Your task to perform on an android device: Go to notification settings Image 0: 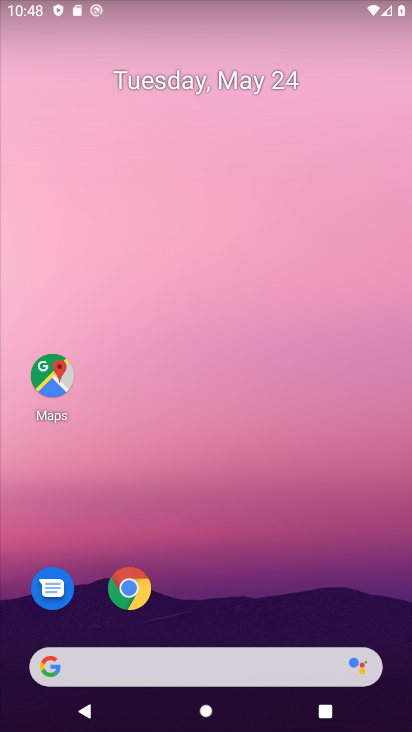
Step 0: drag from (205, 629) to (241, 206)
Your task to perform on an android device: Go to notification settings Image 1: 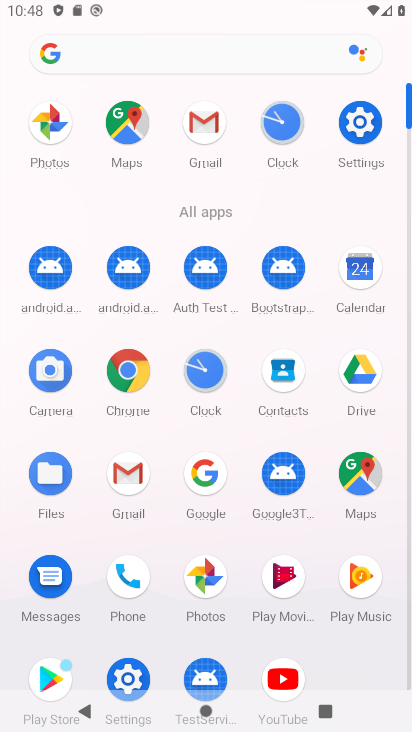
Step 1: click (365, 116)
Your task to perform on an android device: Go to notification settings Image 2: 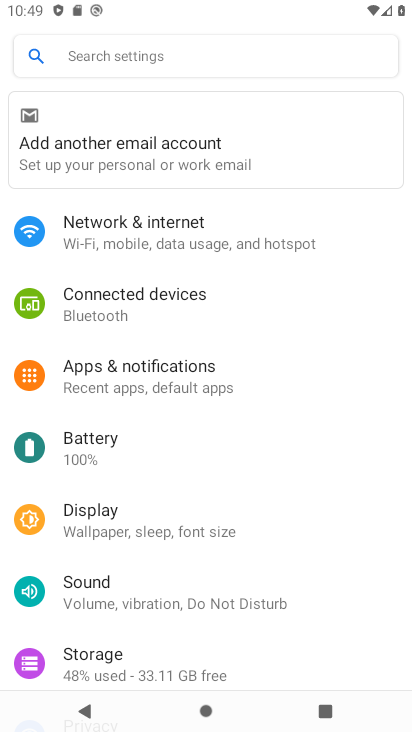
Step 2: click (180, 368)
Your task to perform on an android device: Go to notification settings Image 3: 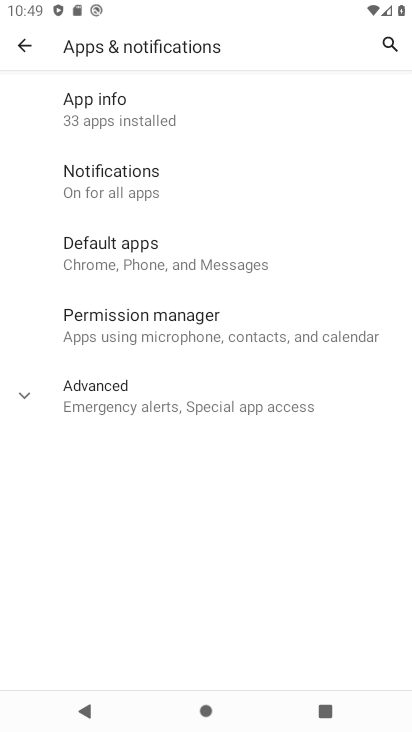
Step 3: click (114, 182)
Your task to perform on an android device: Go to notification settings Image 4: 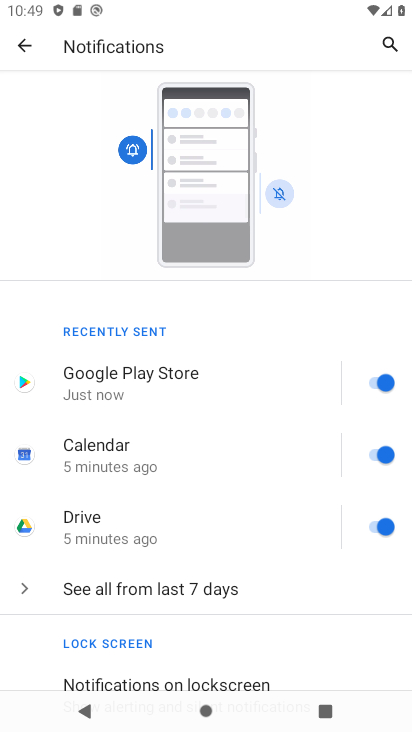
Step 4: drag from (186, 613) to (193, 213)
Your task to perform on an android device: Go to notification settings Image 5: 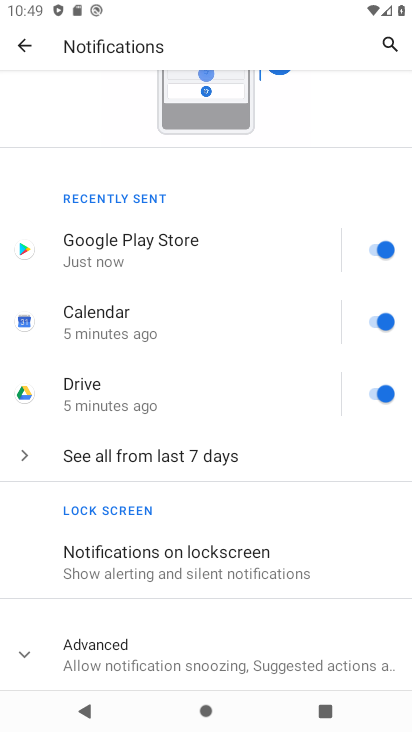
Step 5: drag from (168, 588) to (185, 196)
Your task to perform on an android device: Go to notification settings Image 6: 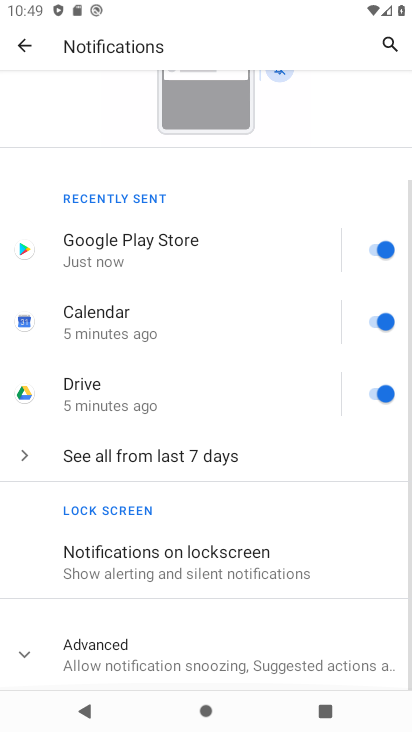
Step 6: click (92, 661)
Your task to perform on an android device: Go to notification settings Image 7: 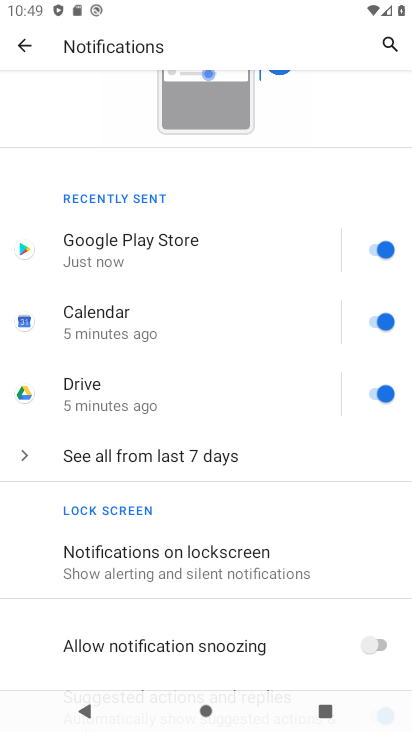
Step 7: task complete